Your task to perform on an android device: Open ESPN.com Image 0: 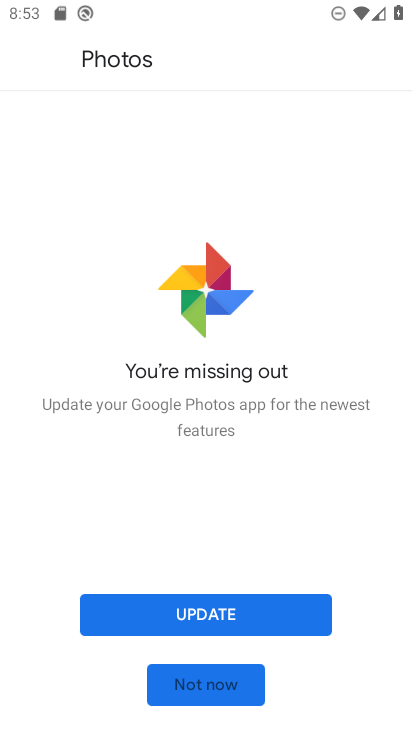
Step 0: press home button
Your task to perform on an android device: Open ESPN.com Image 1: 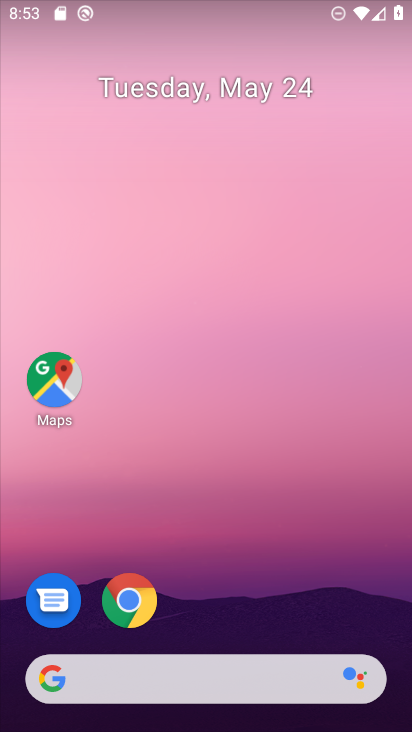
Step 1: click (130, 595)
Your task to perform on an android device: Open ESPN.com Image 2: 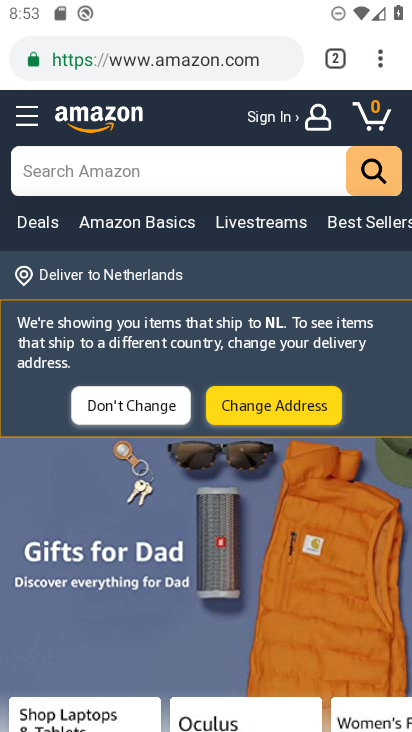
Step 2: click (339, 50)
Your task to perform on an android device: Open ESPN.com Image 3: 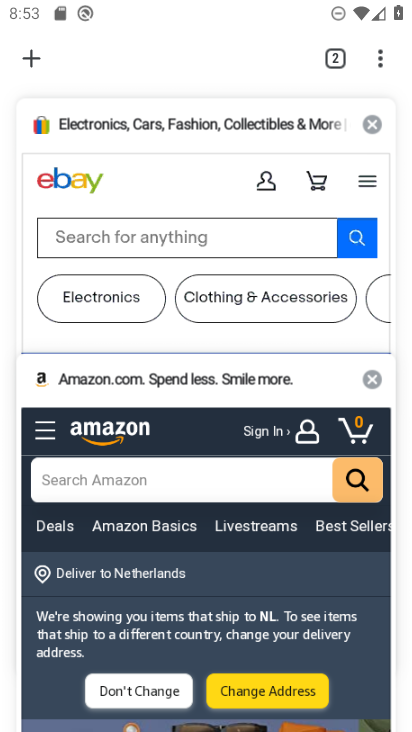
Step 3: click (23, 65)
Your task to perform on an android device: Open ESPN.com Image 4: 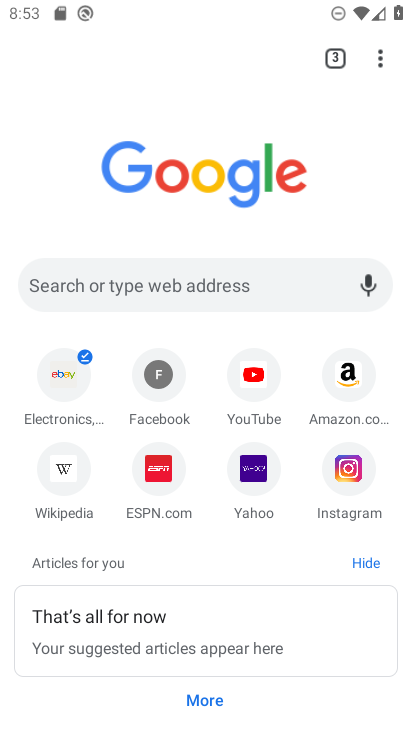
Step 4: click (208, 286)
Your task to perform on an android device: Open ESPN.com Image 5: 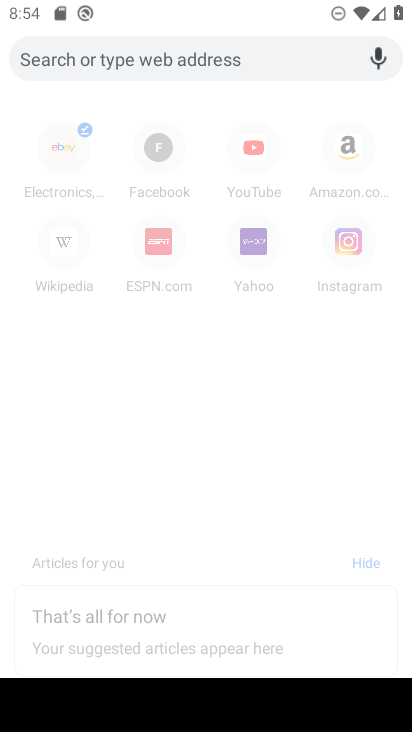
Step 5: type "espn"
Your task to perform on an android device: Open ESPN.com Image 6: 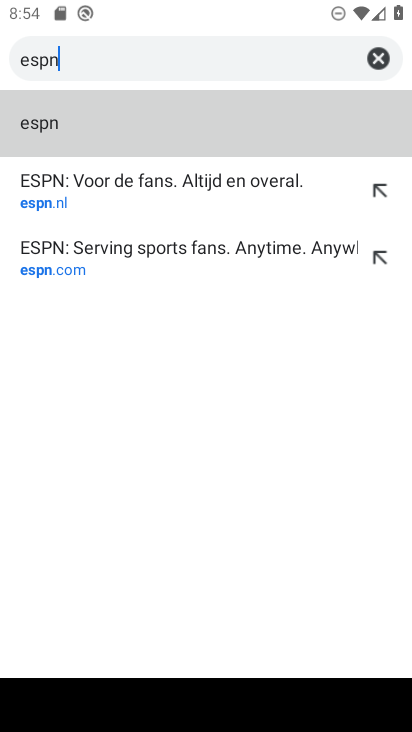
Step 6: click (176, 246)
Your task to perform on an android device: Open ESPN.com Image 7: 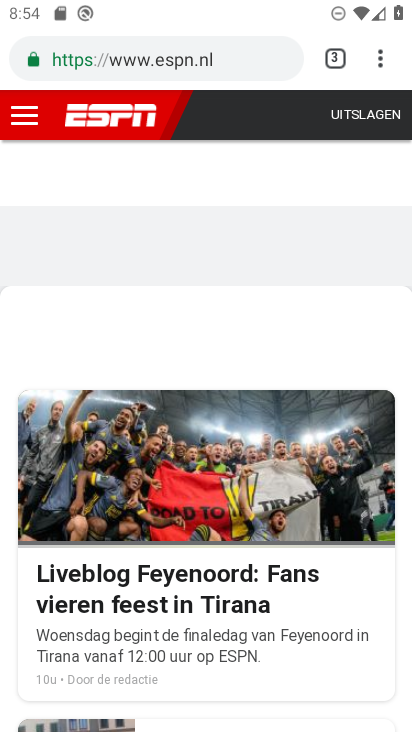
Step 7: task complete